Your task to perform on an android device: turn off javascript in the chrome app Image 0: 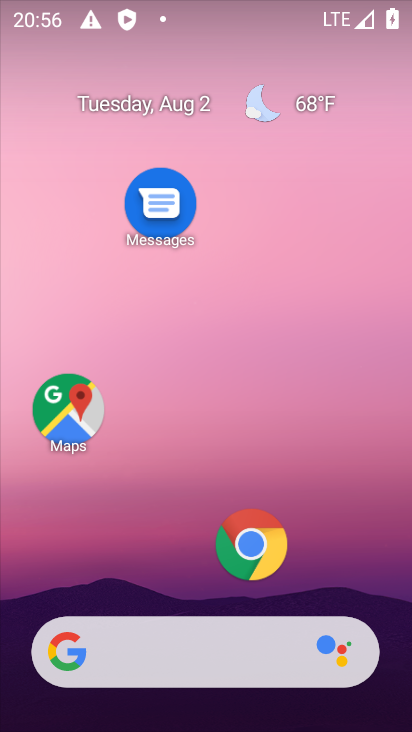
Step 0: click (261, 544)
Your task to perform on an android device: turn off javascript in the chrome app Image 1: 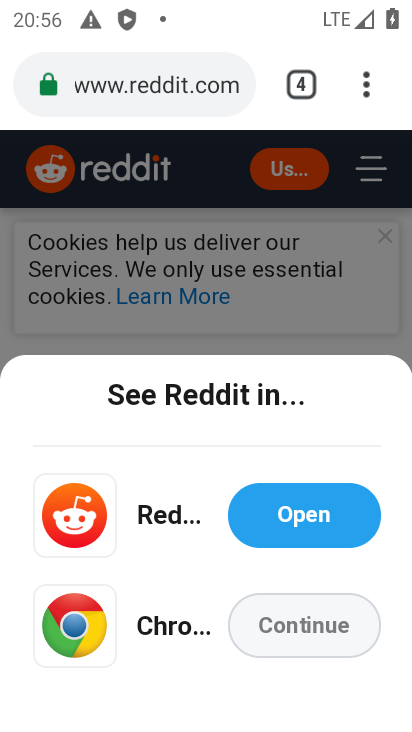
Step 1: drag from (256, 623) to (309, 623)
Your task to perform on an android device: turn off javascript in the chrome app Image 2: 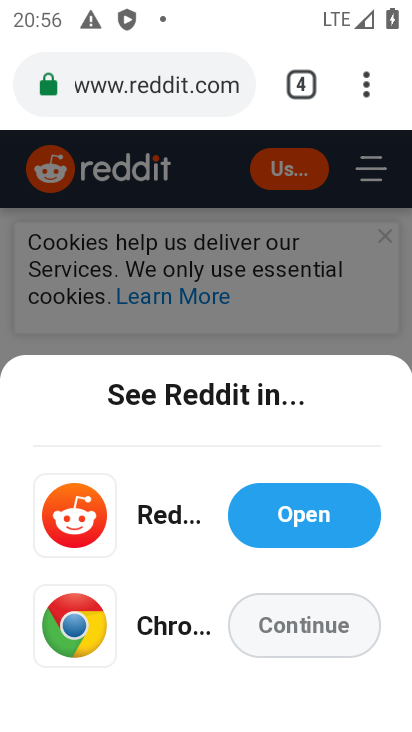
Step 2: click (290, 613)
Your task to perform on an android device: turn off javascript in the chrome app Image 3: 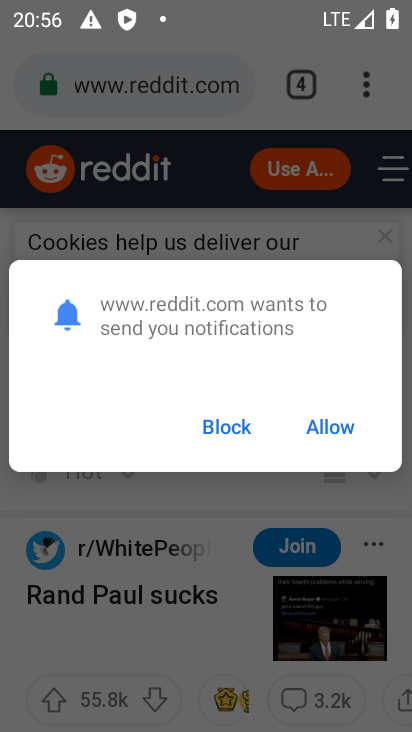
Step 3: click (366, 79)
Your task to perform on an android device: turn off javascript in the chrome app Image 4: 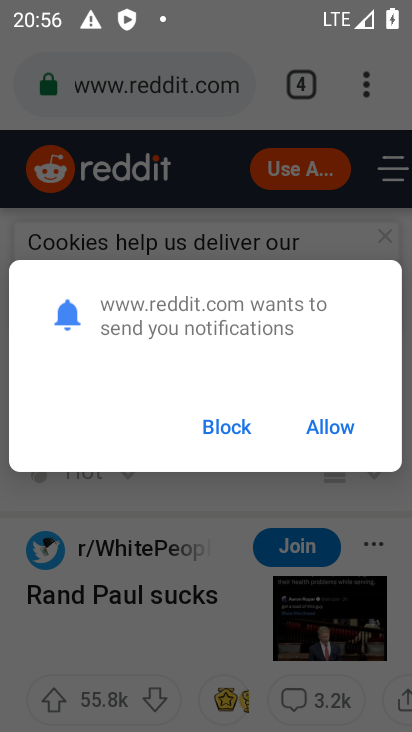
Step 4: click (324, 436)
Your task to perform on an android device: turn off javascript in the chrome app Image 5: 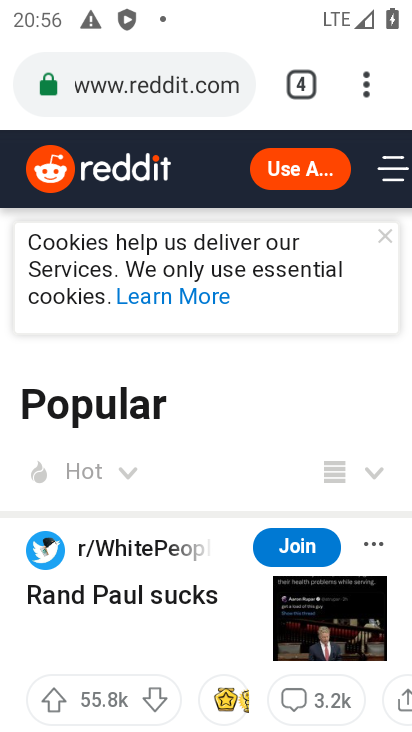
Step 5: click (370, 80)
Your task to perform on an android device: turn off javascript in the chrome app Image 6: 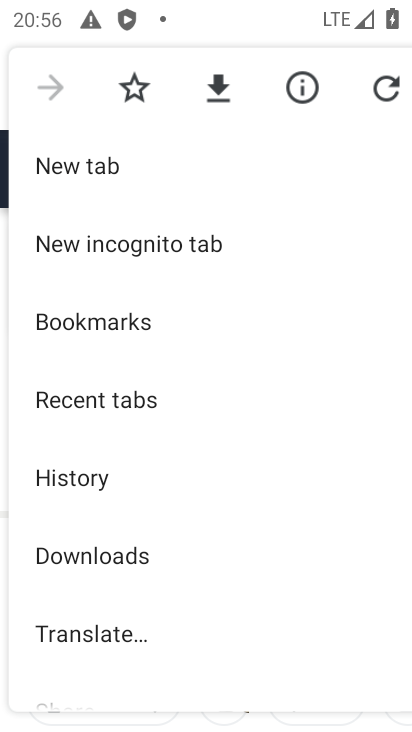
Step 6: drag from (203, 649) to (279, 267)
Your task to perform on an android device: turn off javascript in the chrome app Image 7: 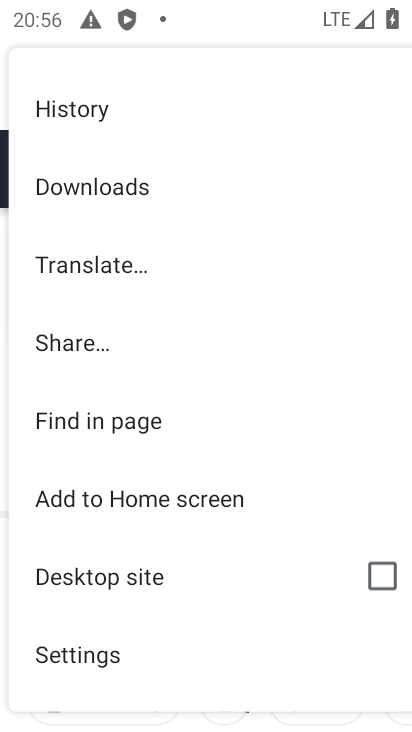
Step 7: drag from (205, 599) to (251, 306)
Your task to perform on an android device: turn off javascript in the chrome app Image 8: 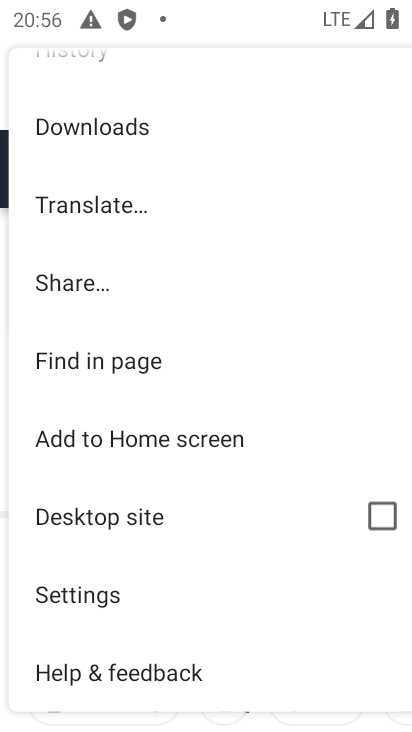
Step 8: click (119, 587)
Your task to perform on an android device: turn off javascript in the chrome app Image 9: 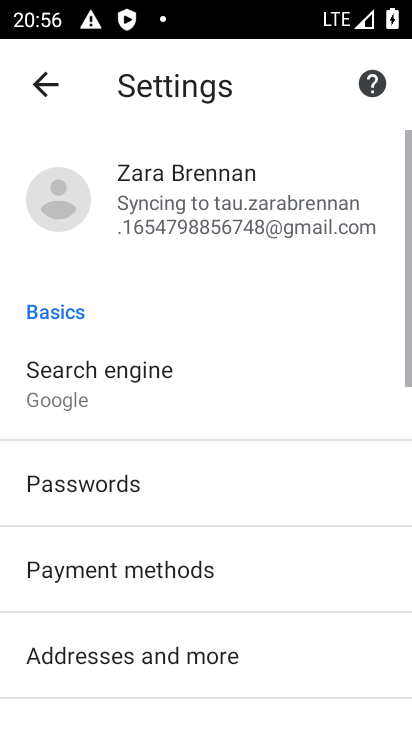
Step 9: drag from (271, 661) to (370, 300)
Your task to perform on an android device: turn off javascript in the chrome app Image 10: 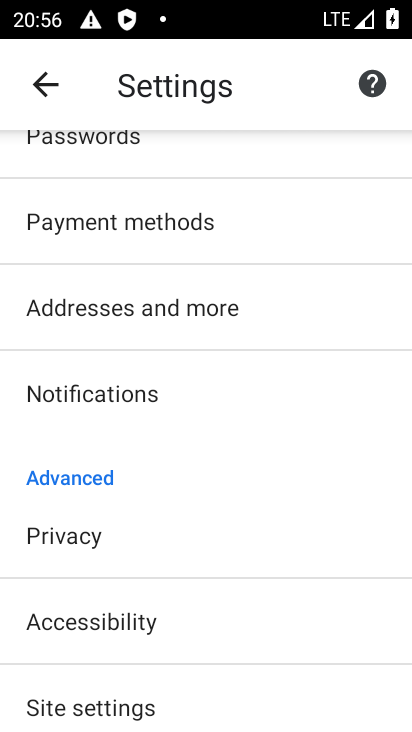
Step 10: drag from (276, 607) to (304, 293)
Your task to perform on an android device: turn off javascript in the chrome app Image 11: 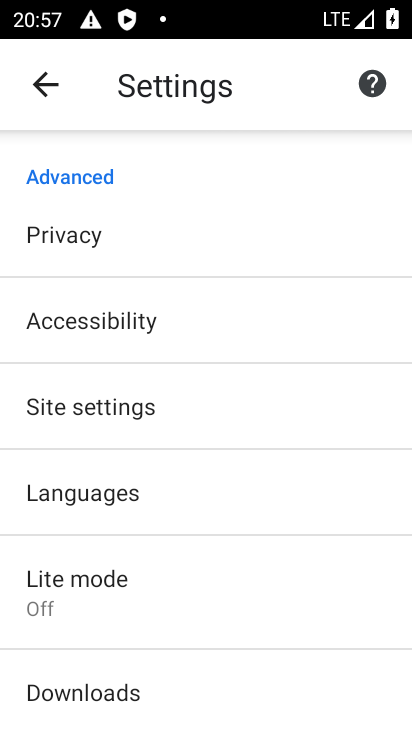
Step 11: drag from (198, 638) to (267, 344)
Your task to perform on an android device: turn off javascript in the chrome app Image 12: 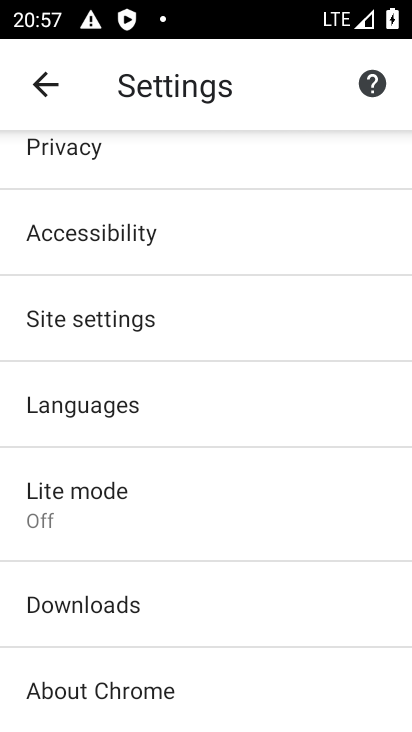
Step 12: click (214, 335)
Your task to perform on an android device: turn off javascript in the chrome app Image 13: 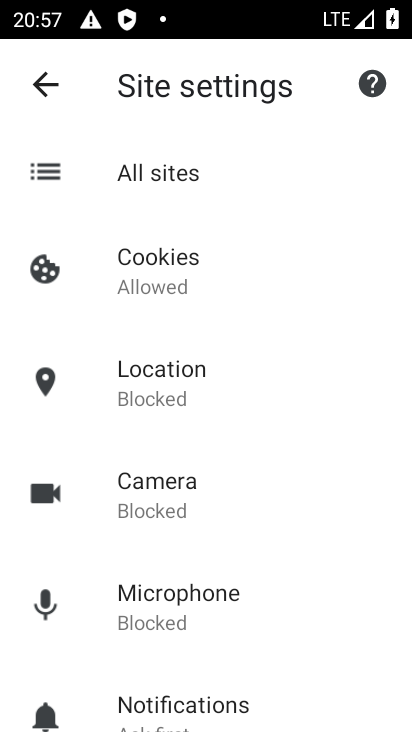
Step 13: drag from (193, 664) to (250, 404)
Your task to perform on an android device: turn off javascript in the chrome app Image 14: 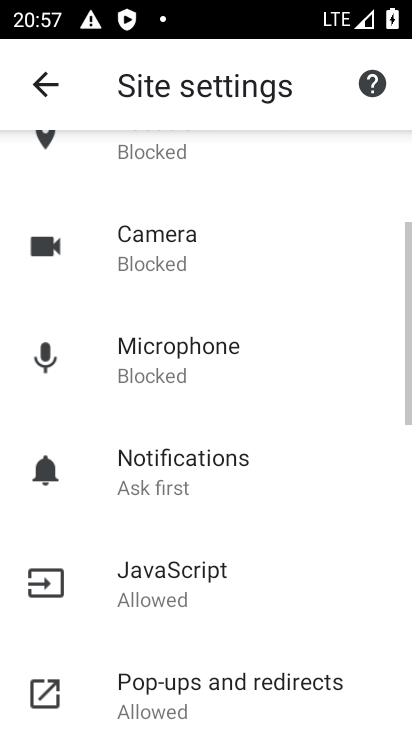
Step 14: click (245, 568)
Your task to perform on an android device: turn off javascript in the chrome app Image 15: 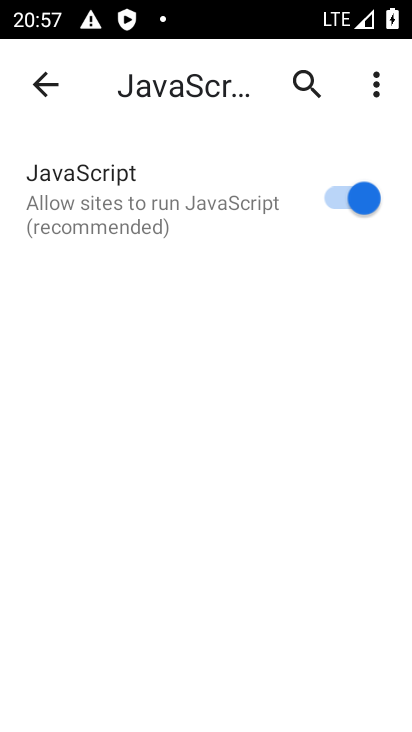
Step 15: click (327, 197)
Your task to perform on an android device: turn off javascript in the chrome app Image 16: 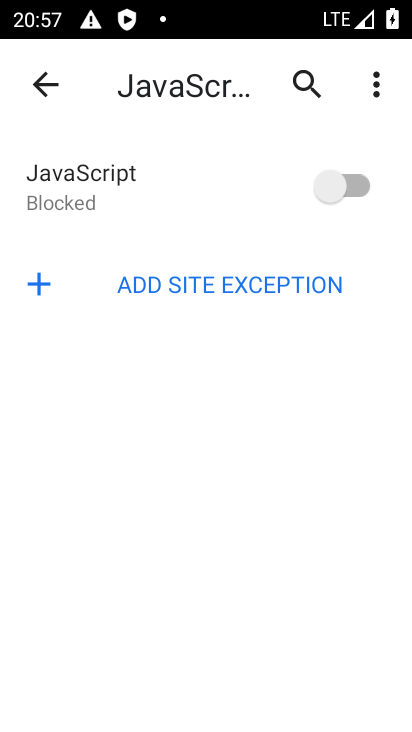
Step 16: task complete